Your task to perform on an android device: toggle notifications settings in the gmail app Image 0: 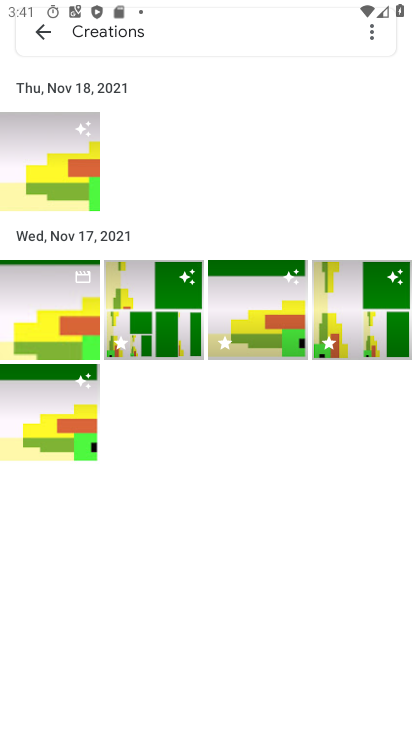
Step 0: press home button
Your task to perform on an android device: toggle notifications settings in the gmail app Image 1: 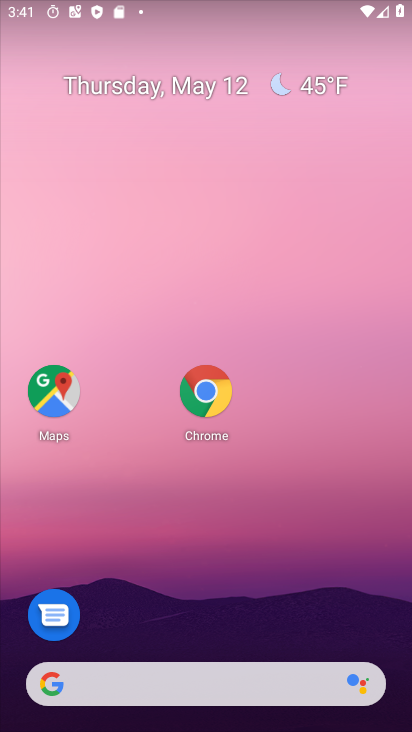
Step 1: drag from (216, 582) to (180, 120)
Your task to perform on an android device: toggle notifications settings in the gmail app Image 2: 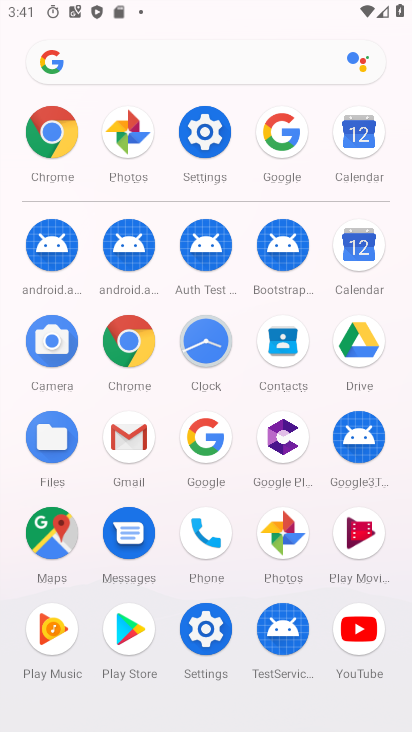
Step 2: click (128, 425)
Your task to perform on an android device: toggle notifications settings in the gmail app Image 3: 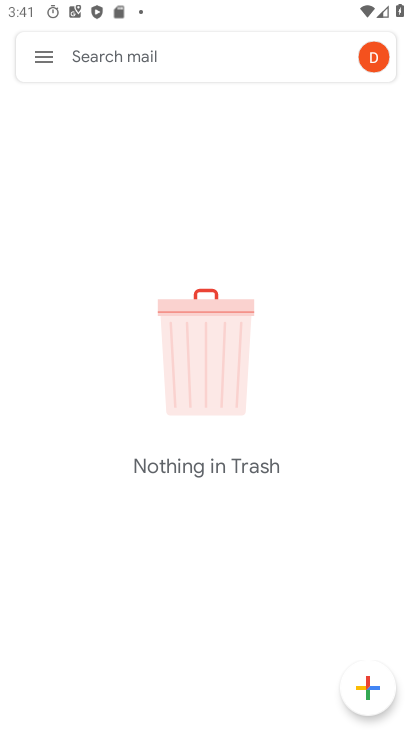
Step 3: click (41, 59)
Your task to perform on an android device: toggle notifications settings in the gmail app Image 4: 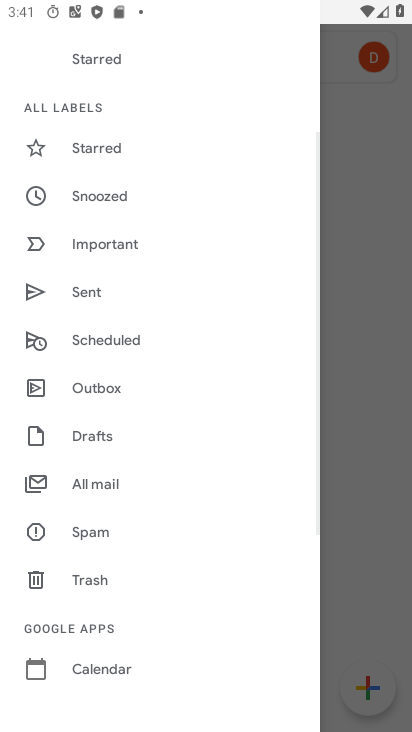
Step 4: drag from (109, 645) to (150, 214)
Your task to perform on an android device: toggle notifications settings in the gmail app Image 5: 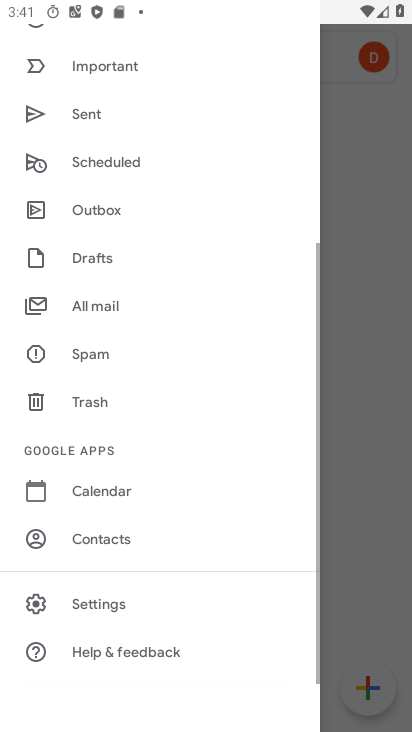
Step 5: click (108, 612)
Your task to perform on an android device: toggle notifications settings in the gmail app Image 6: 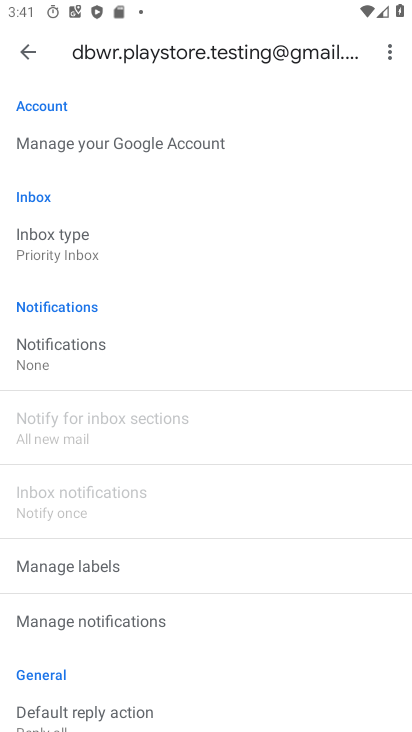
Step 6: click (105, 360)
Your task to perform on an android device: toggle notifications settings in the gmail app Image 7: 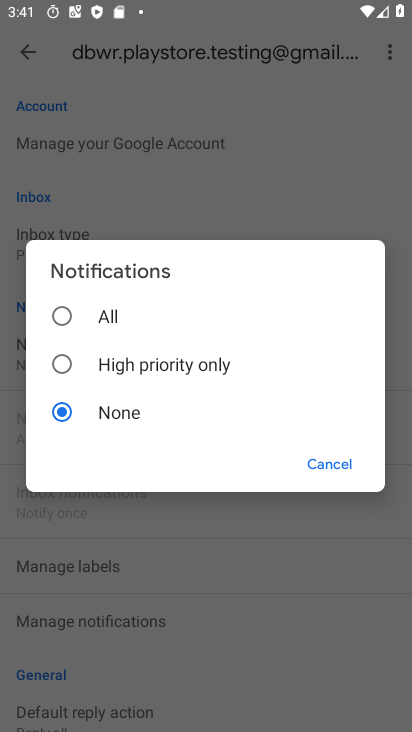
Step 7: click (100, 320)
Your task to perform on an android device: toggle notifications settings in the gmail app Image 8: 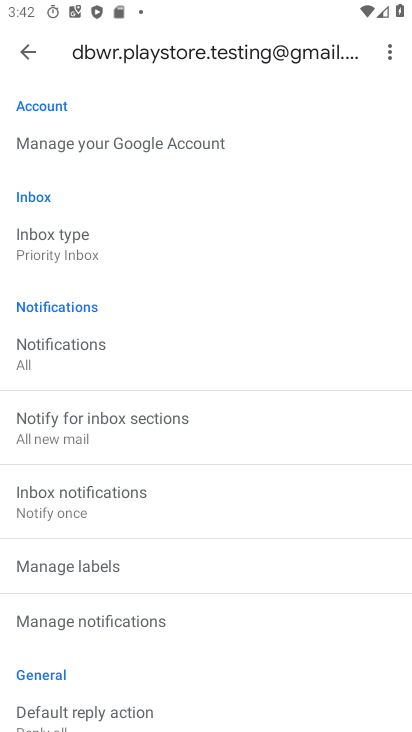
Step 8: task complete